Your task to perform on an android device: delete location history Image 0: 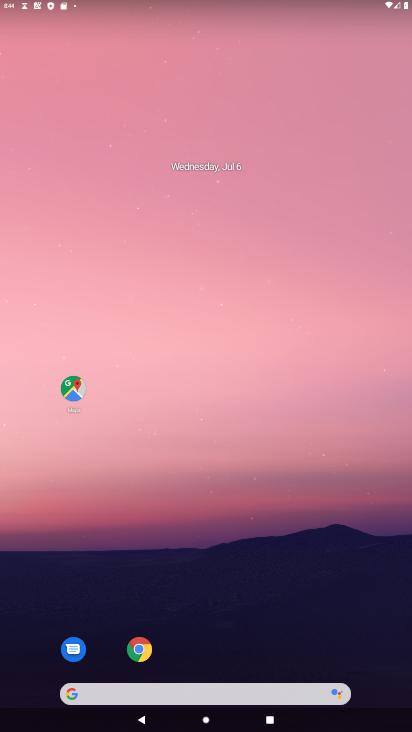
Step 0: drag from (206, 654) to (232, 27)
Your task to perform on an android device: delete location history Image 1: 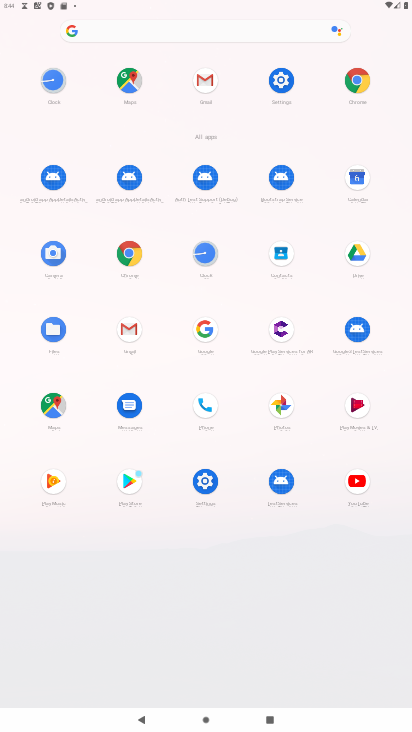
Step 1: click (48, 400)
Your task to perform on an android device: delete location history Image 2: 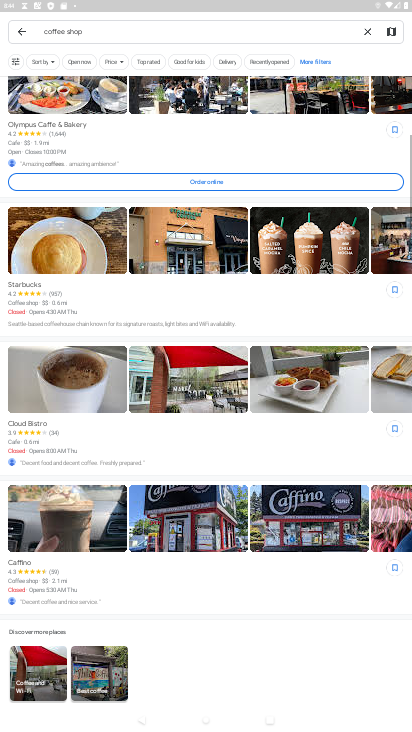
Step 2: click (19, 24)
Your task to perform on an android device: delete location history Image 3: 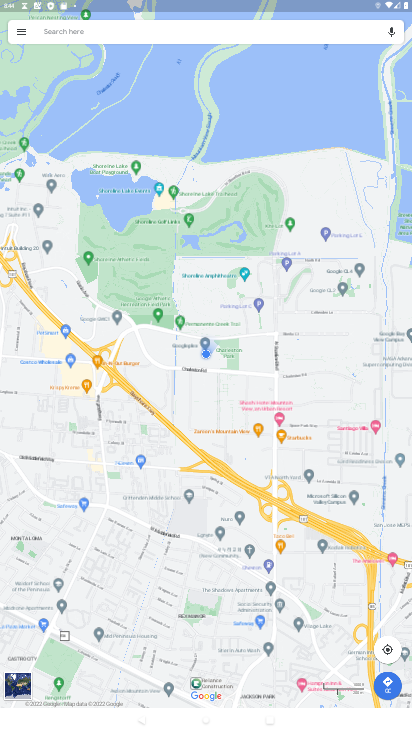
Step 3: click (21, 35)
Your task to perform on an android device: delete location history Image 4: 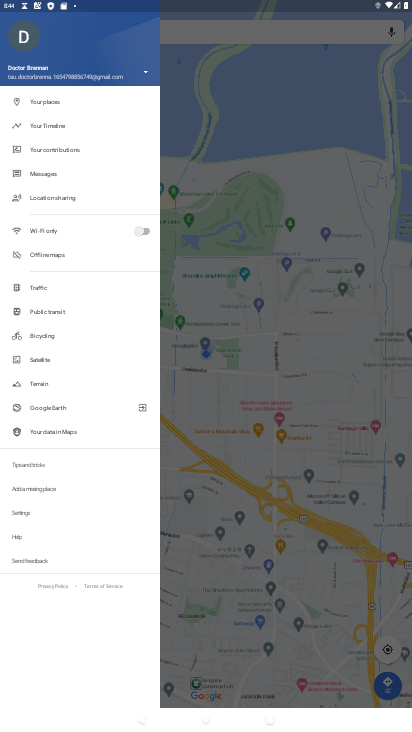
Step 4: click (53, 125)
Your task to perform on an android device: delete location history Image 5: 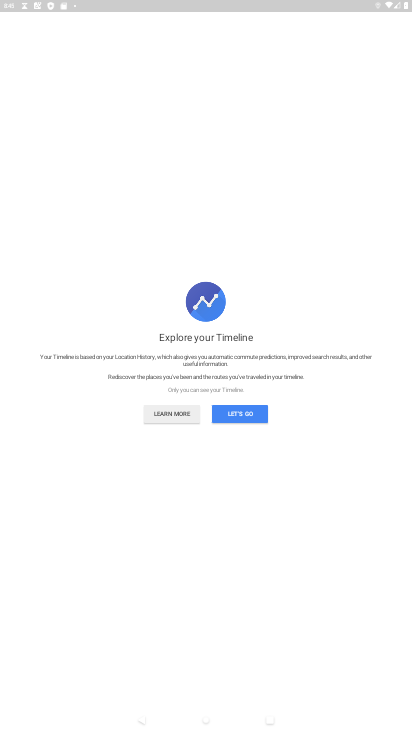
Step 5: click (243, 412)
Your task to perform on an android device: delete location history Image 6: 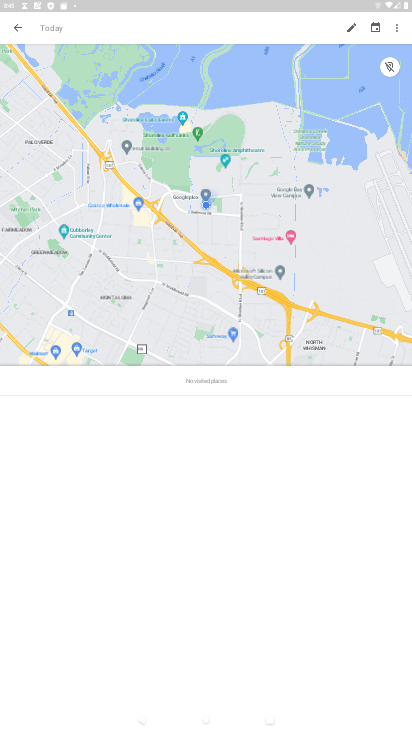
Step 6: click (396, 27)
Your task to perform on an android device: delete location history Image 7: 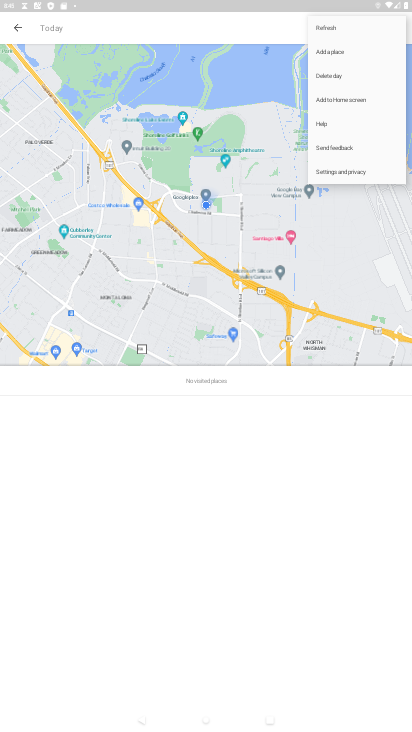
Step 7: click (344, 175)
Your task to perform on an android device: delete location history Image 8: 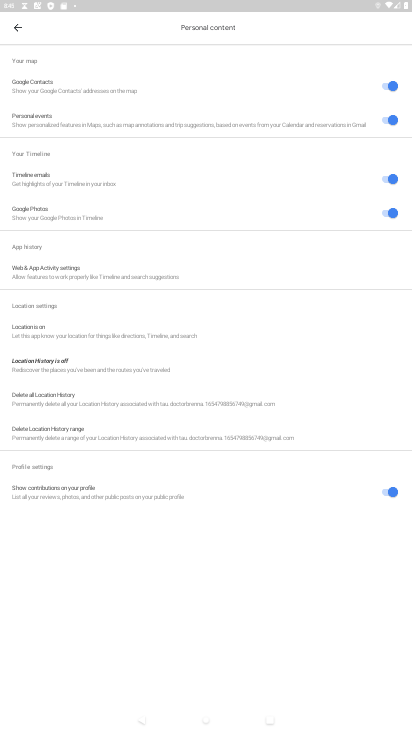
Step 8: click (58, 397)
Your task to perform on an android device: delete location history Image 9: 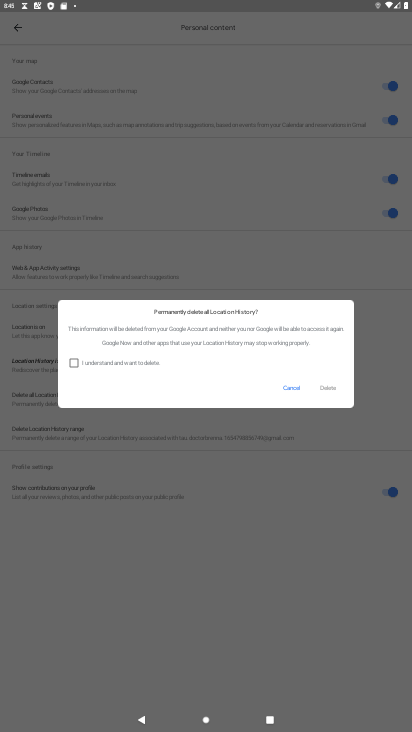
Step 9: click (71, 363)
Your task to perform on an android device: delete location history Image 10: 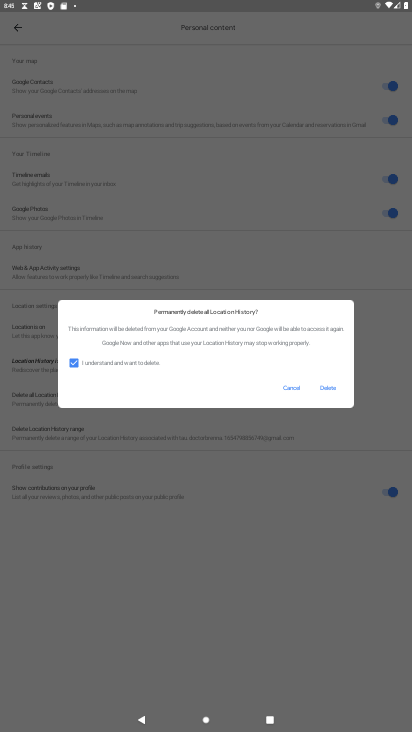
Step 10: click (328, 391)
Your task to perform on an android device: delete location history Image 11: 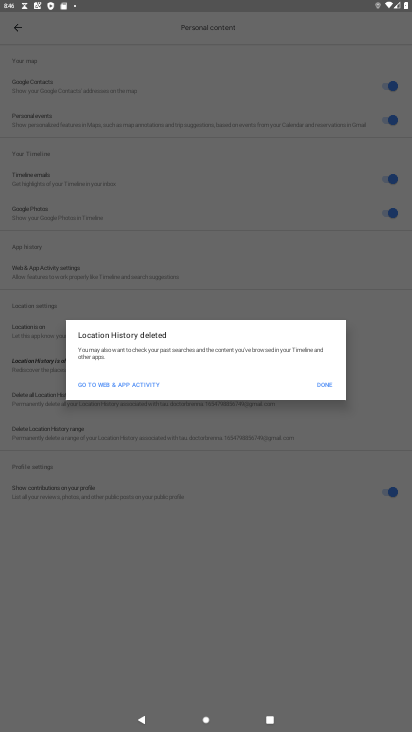
Step 11: click (318, 383)
Your task to perform on an android device: delete location history Image 12: 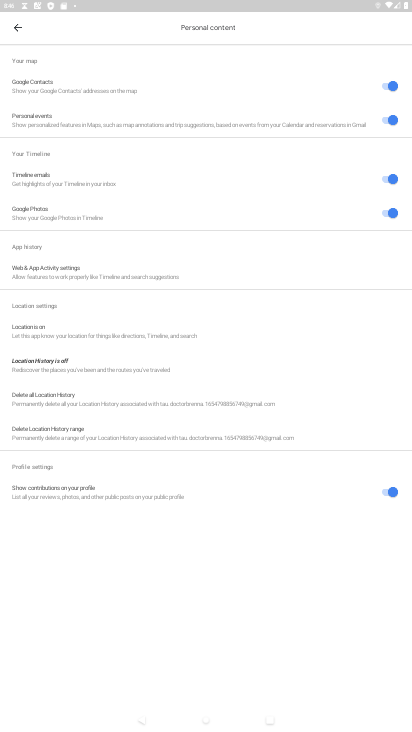
Step 12: task complete